Your task to perform on an android device: open app "Venmo" (install if not already installed), go to login, and select forgot password Image 0: 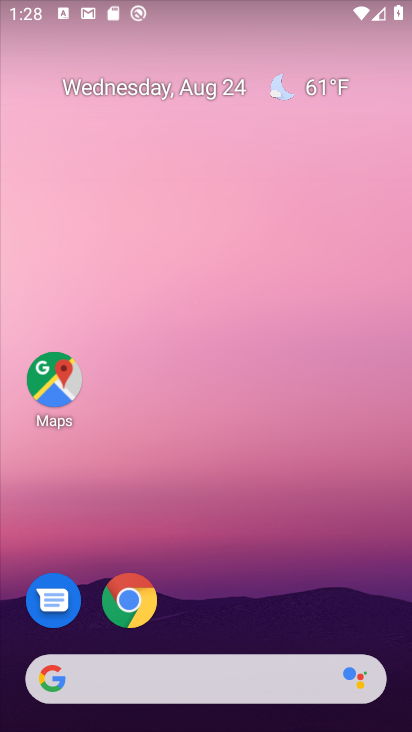
Step 0: drag from (253, 611) to (222, 39)
Your task to perform on an android device: open app "Venmo" (install if not already installed), go to login, and select forgot password Image 1: 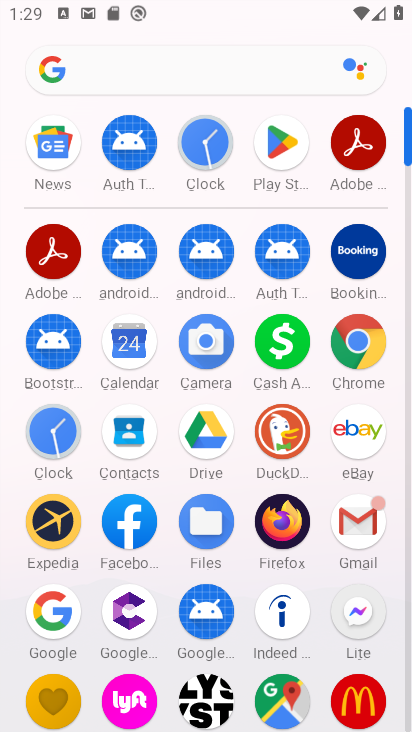
Step 1: click (294, 163)
Your task to perform on an android device: open app "Venmo" (install if not already installed), go to login, and select forgot password Image 2: 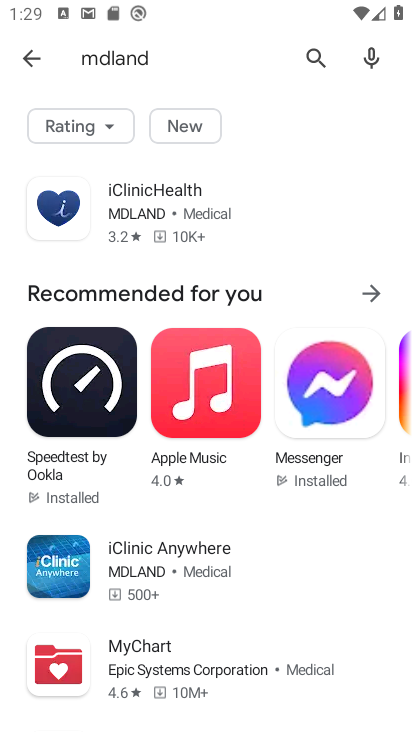
Step 2: click (314, 50)
Your task to perform on an android device: open app "Venmo" (install if not already installed), go to login, and select forgot password Image 3: 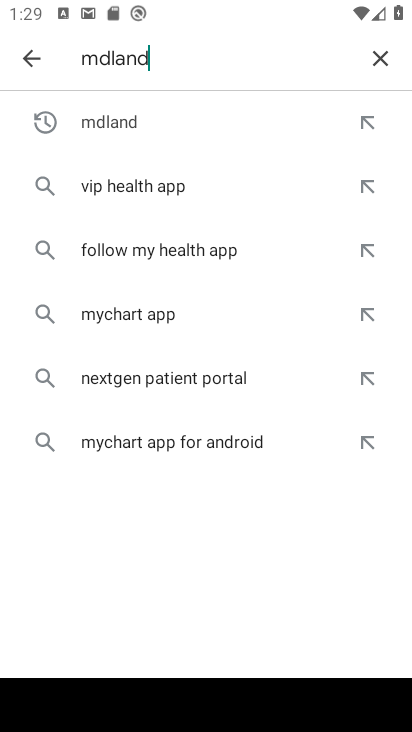
Step 3: click (375, 70)
Your task to perform on an android device: open app "Venmo" (install if not already installed), go to login, and select forgot password Image 4: 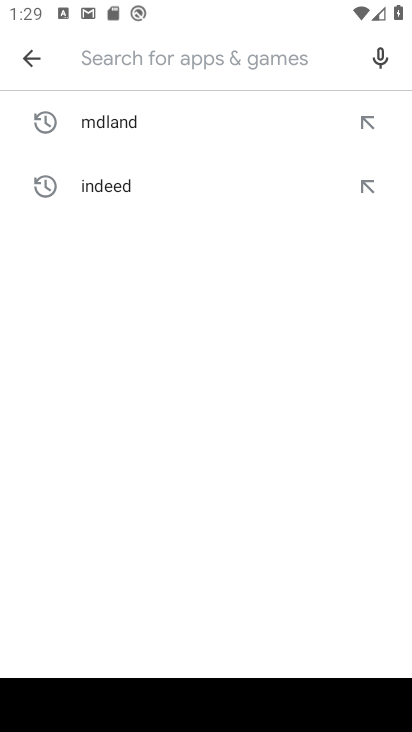
Step 4: type "venmo"
Your task to perform on an android device: open app "Venmo" (install if not already installed), go to login, and select forgot password Image 5: 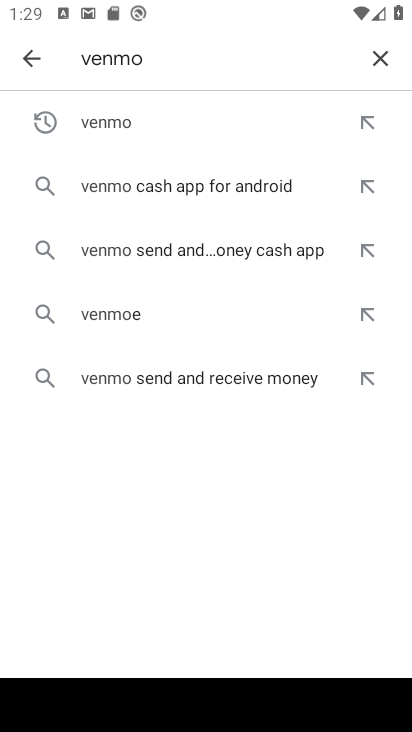
Step 5: click (167, 106)
Your task to perform on an android device: open app "Venmo" (install if not already installed), go to login, and select forgot password Image 6: 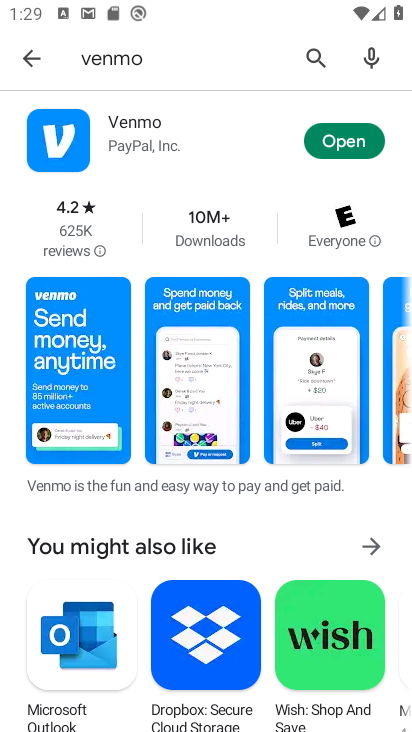
Step 6: click (356, 136)
Your task to perform on an android device: open app "Venmo" (install if not already installed), go to login, and select forgot password Image 7: 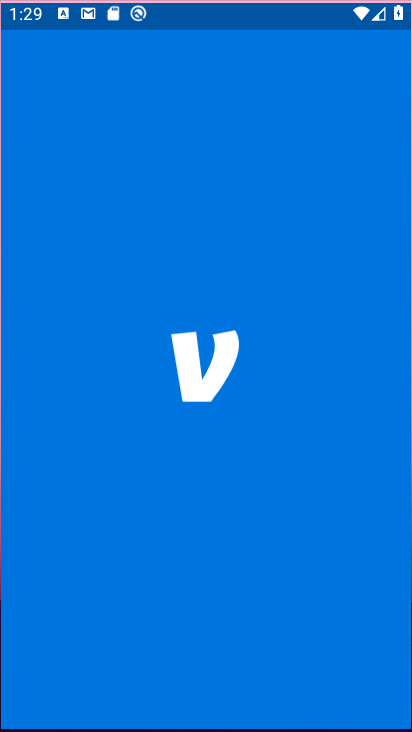
Step 7: task complete